Your task to perform on an android device: Open the phone app and click the voicemail tab. Image 0: 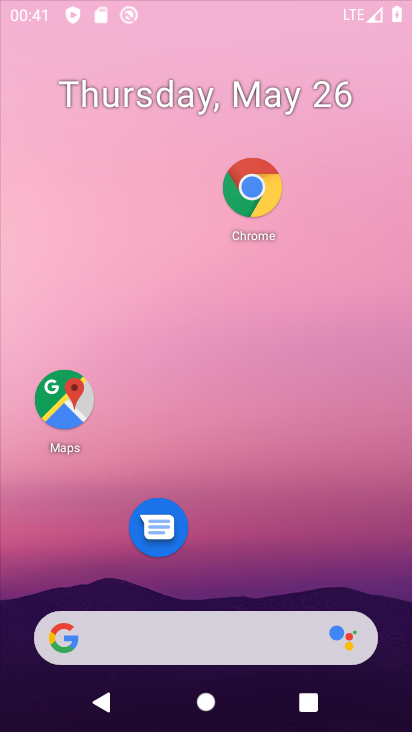
Step 0: drag from (206, 568) to (170, 43)
Your task to perform on an android device: Open the phone app and click the voicemail tab. Image 1: 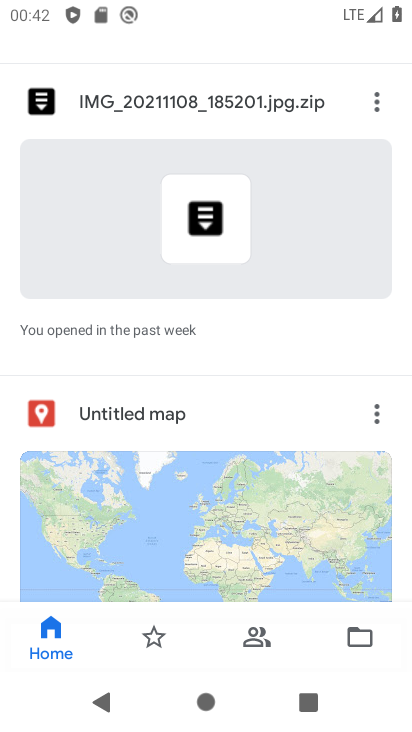
Step 1: press home button
Your task to perform on an android device: Open the phone app and click the voicemail tab. Image 2: 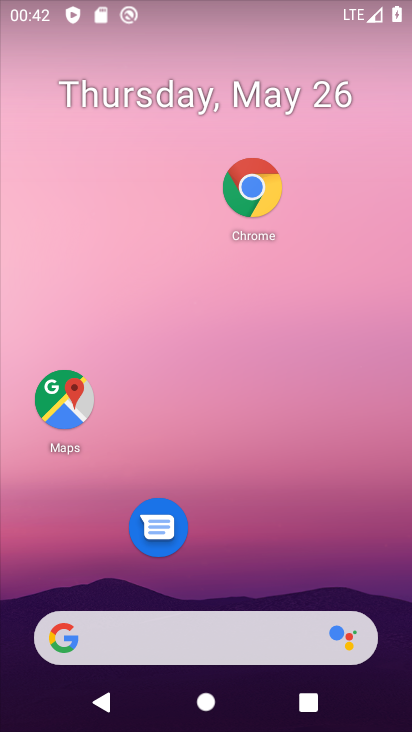
Step 2: drag from (225, 574) to (188, 57)
Your task to perform on an android device: Open the phone app and click the voicemail tab. Image 3: 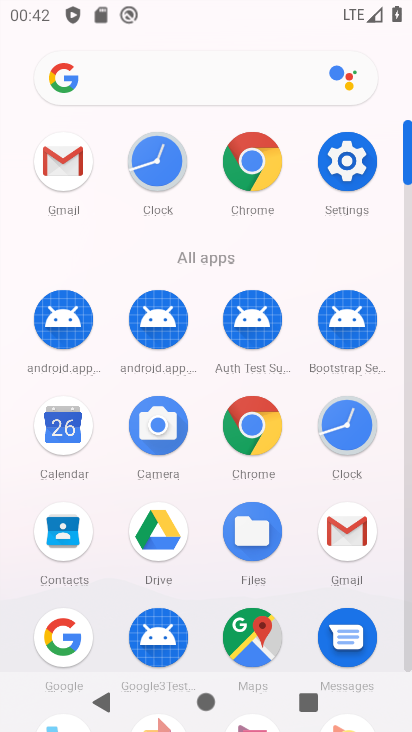
Step 3: drag from (216, 578) to (210, 115)
Your task to perform on an android device: Open the phone app and click the voicemail tab. Image 4: 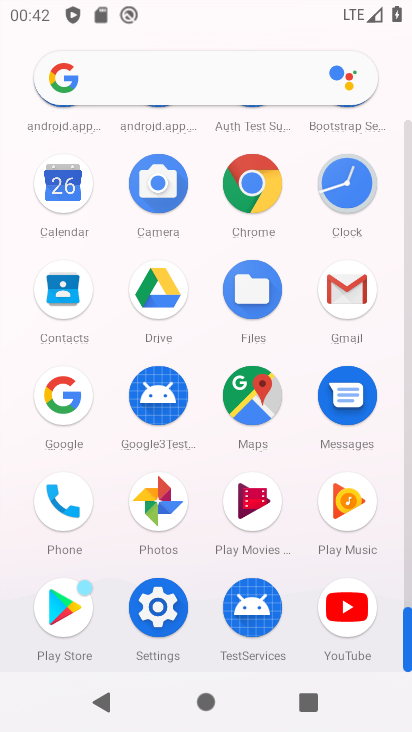
Step 4: click (56, 490)
Your task to perform on an android device: Open the phone app and click the voicemail tab. Image 5: 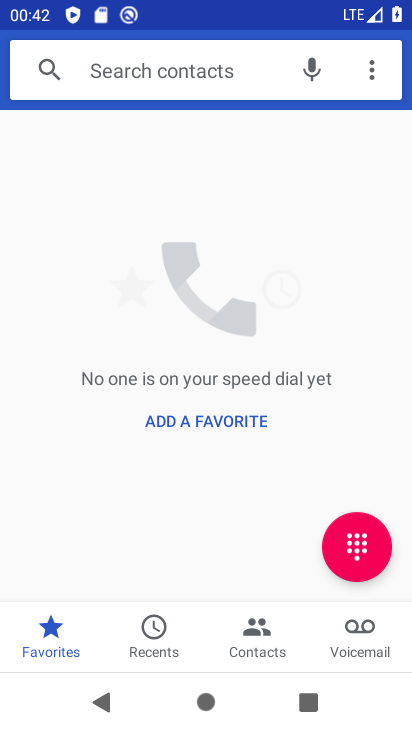
Step 5: click (391, 623)
Your task to perform on an android device: Open the phone app and click the voicemail tab. Image 6: 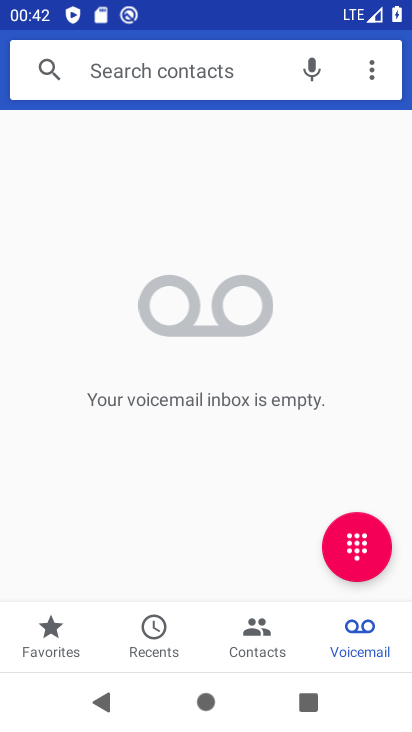
Step 6: task complete